Your task to perform on an android device: turn off smart reply in the gmail app Image 0: 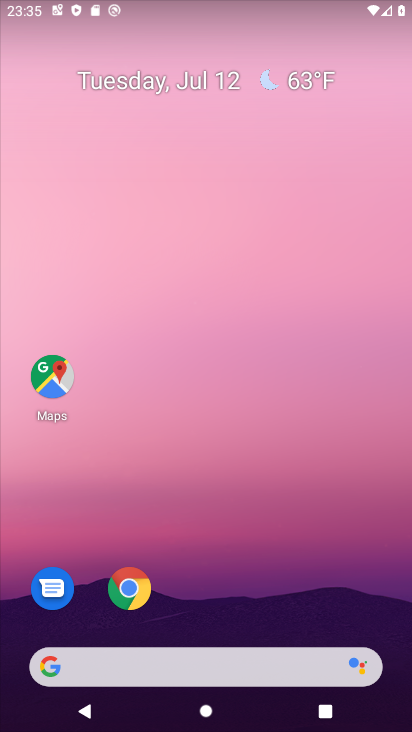
Step 0: drag from (46, 651) to (202, 116)
Your task to perform on an android device: turn off smart reply in the gmail app Image 1: 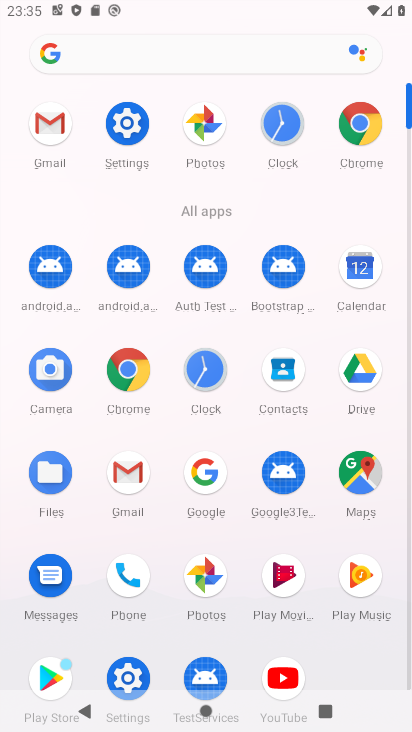
Step 1: click (115, 471)
Your task to perform on an android device: turn off smart reply in the gmail app Image 2: 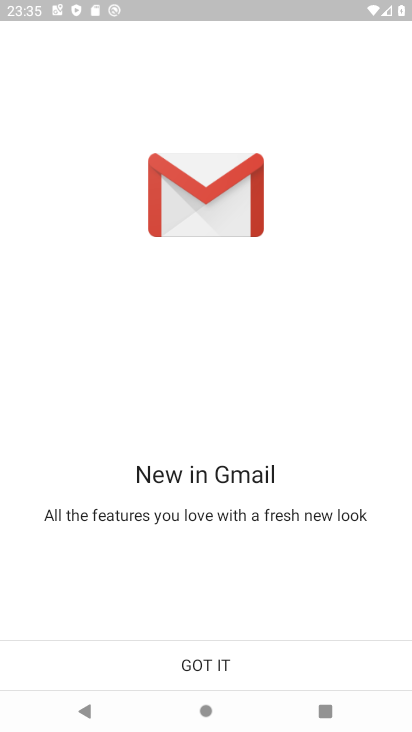
Step 2: click (190, 662)
Your task to perform on an android device: turn off smart reply in the gmail app Image 3: 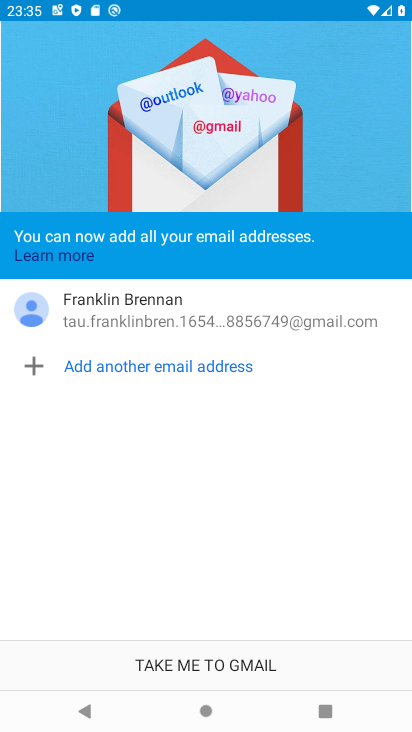
Step 3: click (200, 661)
Your task to perform on an android device: turn off smart reply in the gmail app Image 4: 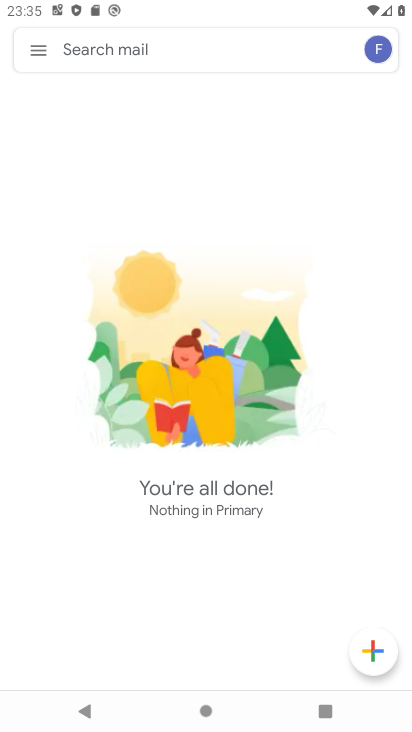
Step 4: click (40, 60)
Your task to perform on an android device: turn off smart reply in the gmail app Image 5: 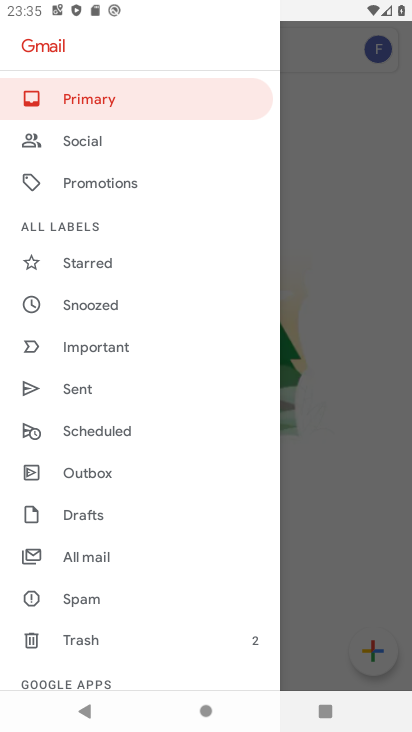
Step 5: click (64, 108)
Your task to perform on an android device: turn off smart reply in the gmail app Image 6: 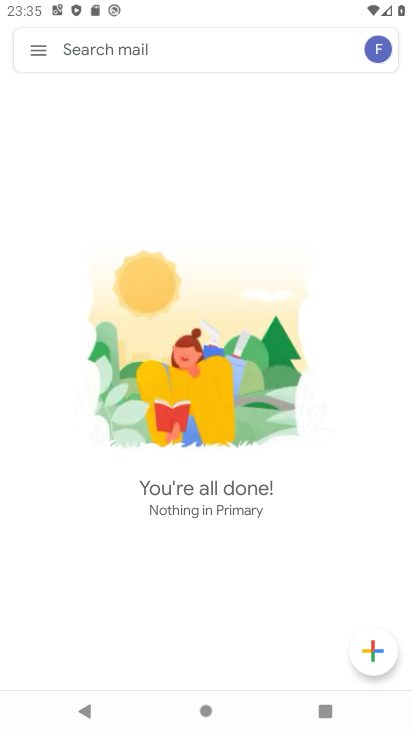
Step 6: task complete